Your task to perform on an android device: turn notification dots on Image 0: 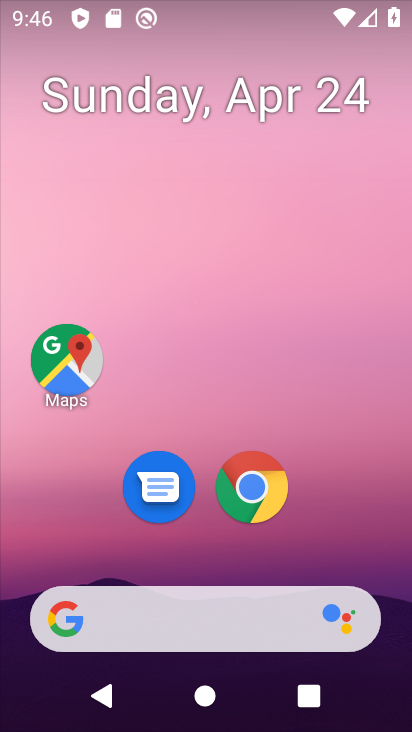
Step 0: drag from (330, 476) to (315, 147)
Your task to perform on an android device: turn notification dots on Image 1: 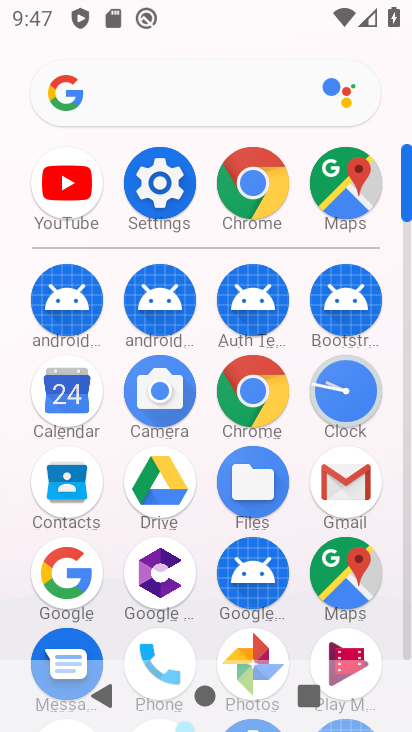
Step 1: drag from (299, 265) to (290, 0)
Your task to perform on an android device: turn notification dots on Image 2: 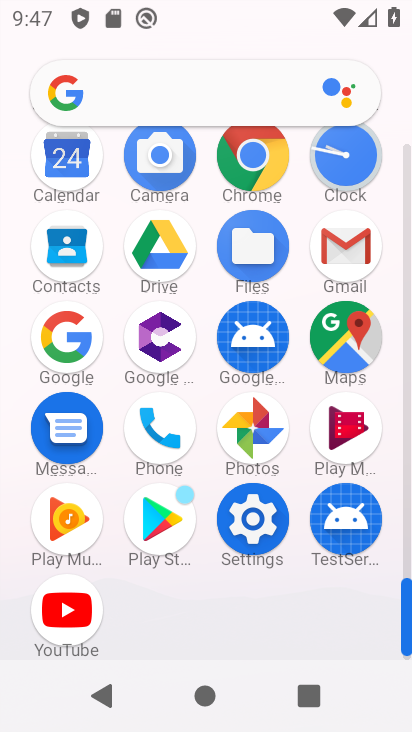
Step 2: click (257, 526)
Your task to perform on an android device: turn notification dots on Image 3: 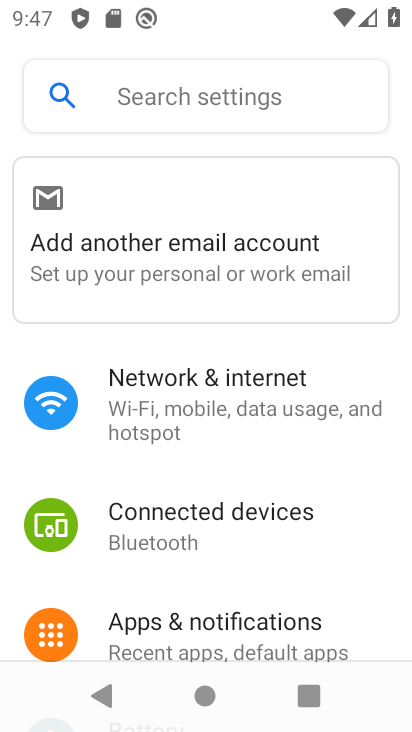
Step 3: drag from (342, 600) to (314, 241)
Your task to perform on an android device: turn notification dots on Image 4: 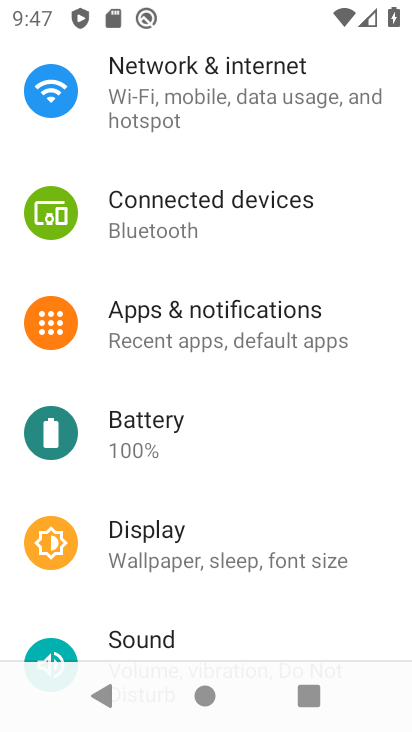
Step 4: drag from (316, 618) to (318, 465)
Your task to perform on an android device: turn notification dots on Image 5: 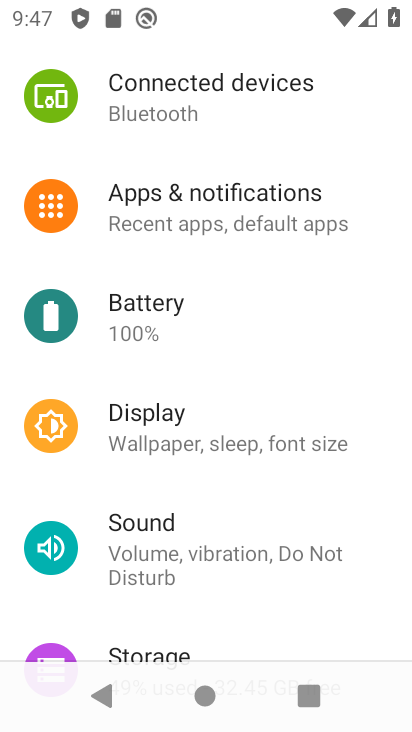
Step 5: click (196, 220)
Your task to perform on an android device: turn notification dots on Image 6: 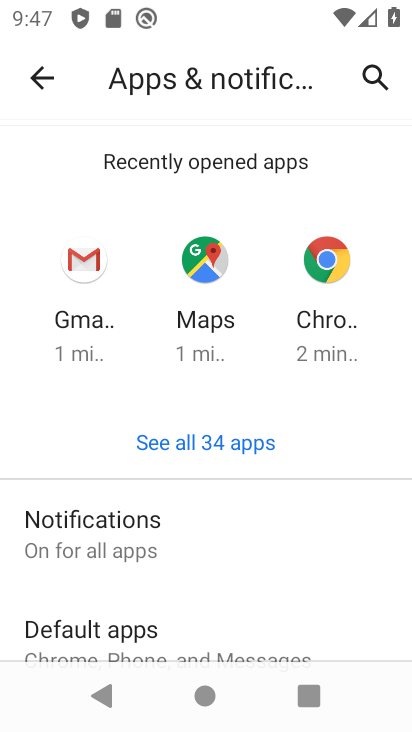
Step 6: drag from (363, 561) to (365, 368)
Your task to perform on an android device: turn notification dots on Image 7: 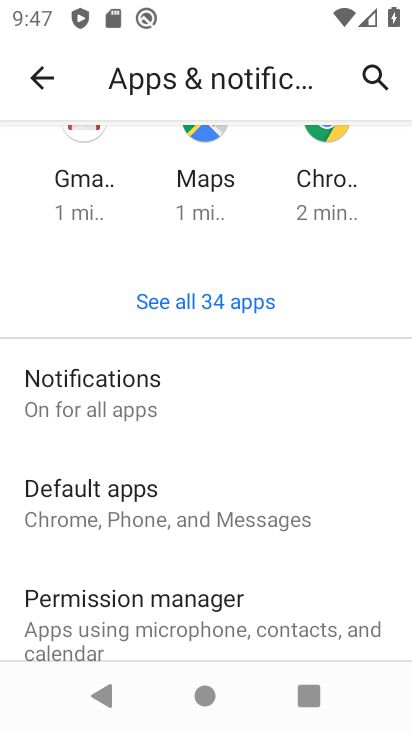
Step 7: drag from (332, 584) to (366, 362)
Your task to perform on an android device: turn notification dots on Image 8: 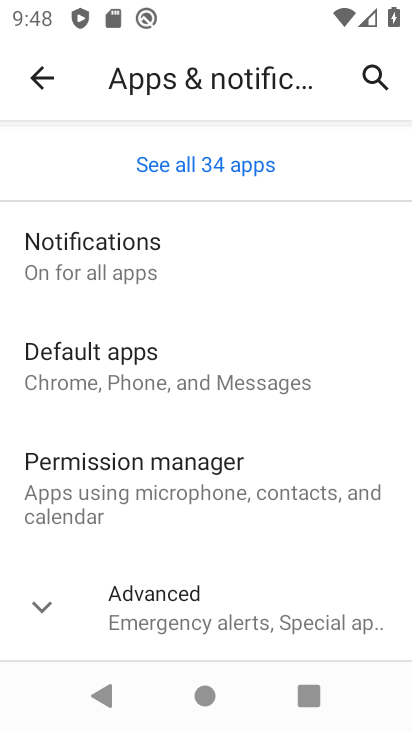
Step 8: drag from (312, 568) to (329, 330)
Your task to perform on an android device: turn notification dots on Image 9: 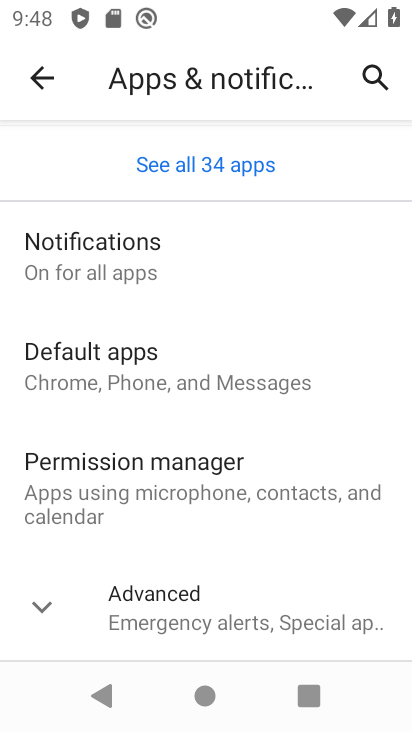
Step 9: click (88, 251)
Your task to perform on an android device: turn notification dots on Image 10: 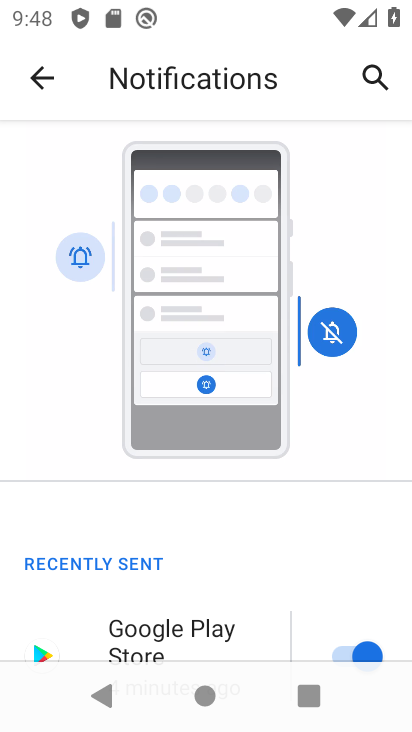
Step 10: drag from (287, 539) to (311, 187)
Your task to perform on an android device: turn notification dots on Image 11: 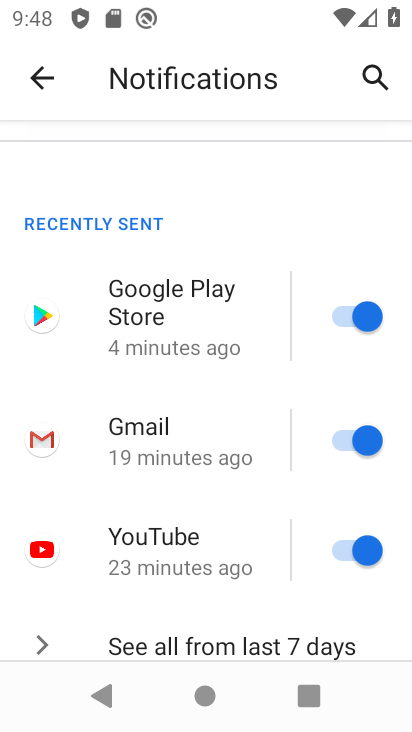
Step 11: drag from (278, 562) to (278, 221)
Your task to perform on an android device: turn notification dots on Image 12: 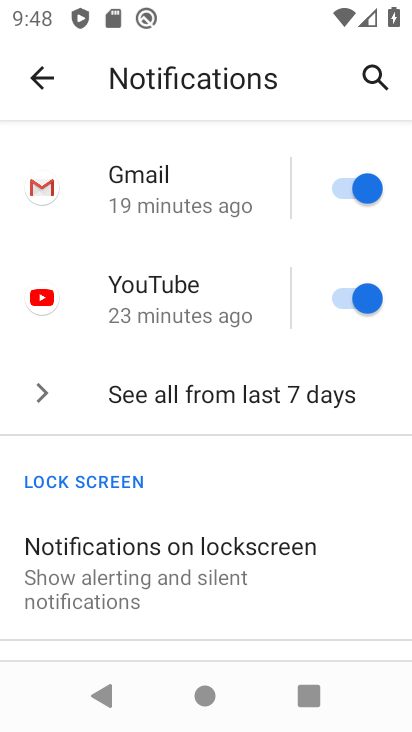
Step 12: drag from (287, 596) to (290, 314)
Your task to perform on an android device: turn notification dots on Image 13: 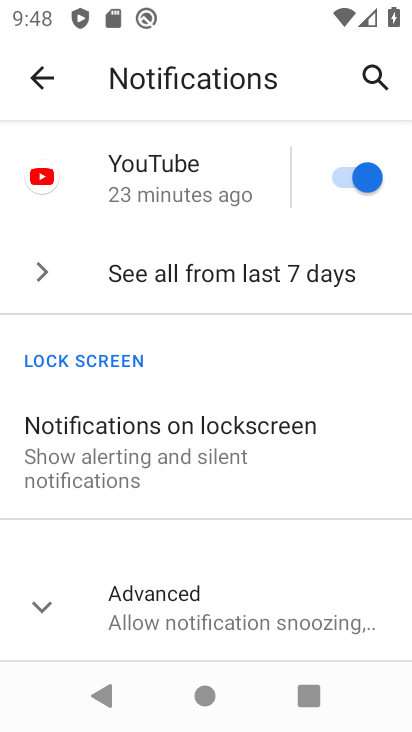
Step 13: drag from (280, 583) to (281, 500)
Your task to perform on an android device: turn notification dots on Image 14: 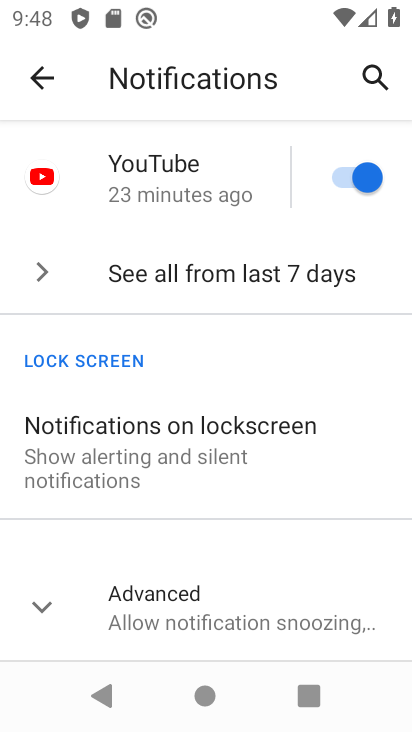
Step 14: click (262, 620)
Your task to perform on an android device: turn notification dots on Image 15: 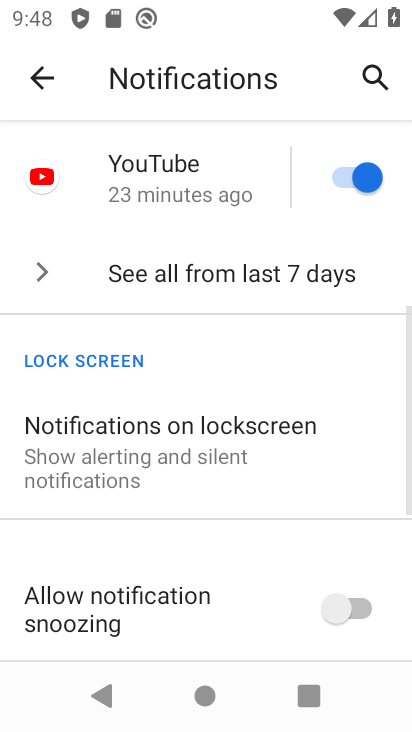
Step 15: task complete